Your task to perform on an android device: toggle priority inbox in the gmail app Image 0: 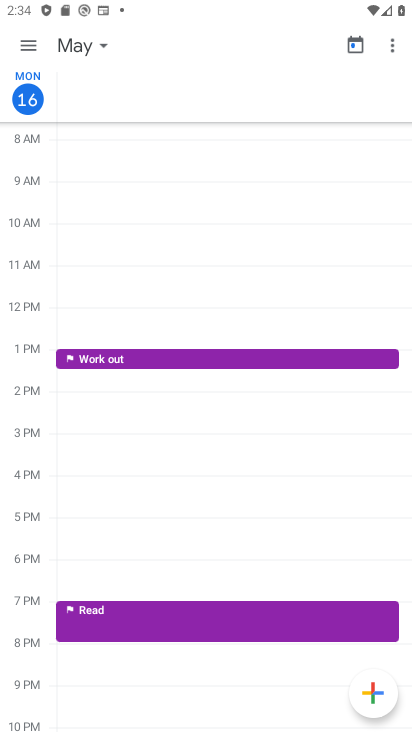
Step 0: press home button
Your task to perform on an android device: toggle priority inbox in the gmail app Image 1: 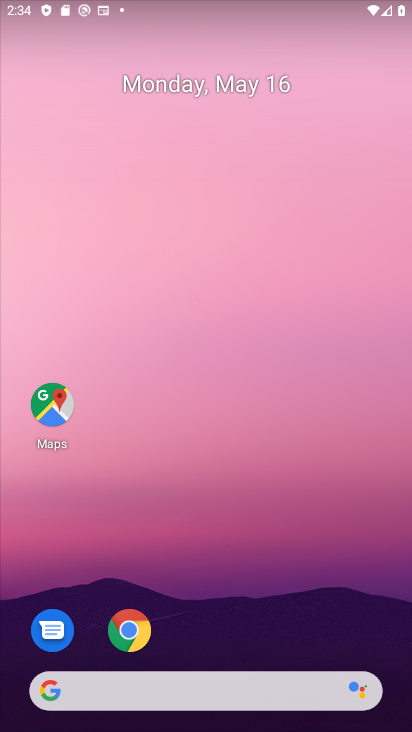
Step 1: drag from (213, 627) to (253, 101)
Your task to perform on an android device: toggle priority inbox in the gmail app Image 2: 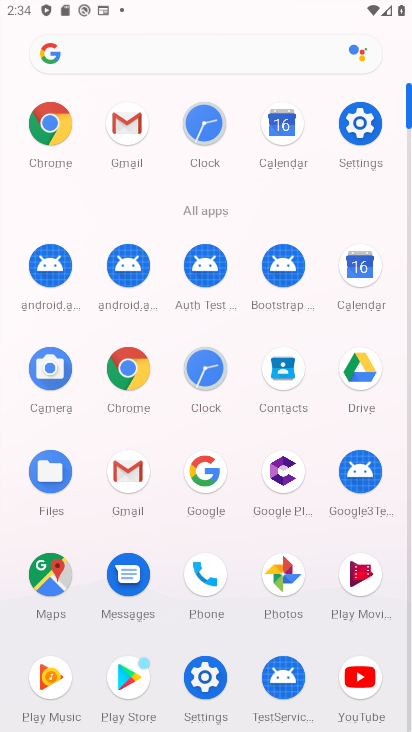
Step 2: click (120, 118)
Your task to perform on an android device: toggle priority inbox in the gmail app Image 3: 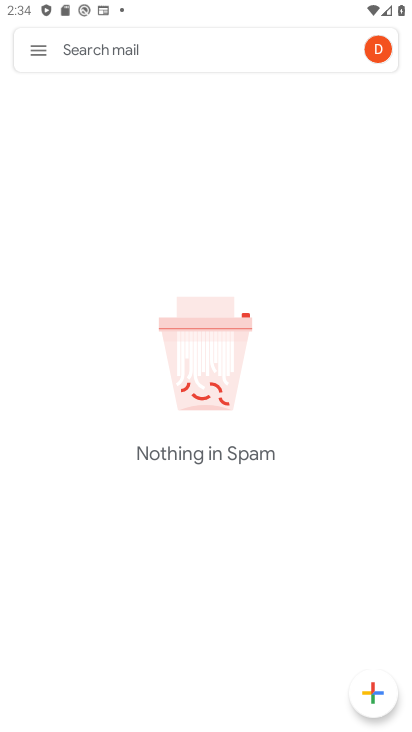
Step 3: click (35, 46)
Your task to perform on an android device: toggle priority inbox in the gmail app Image 4: 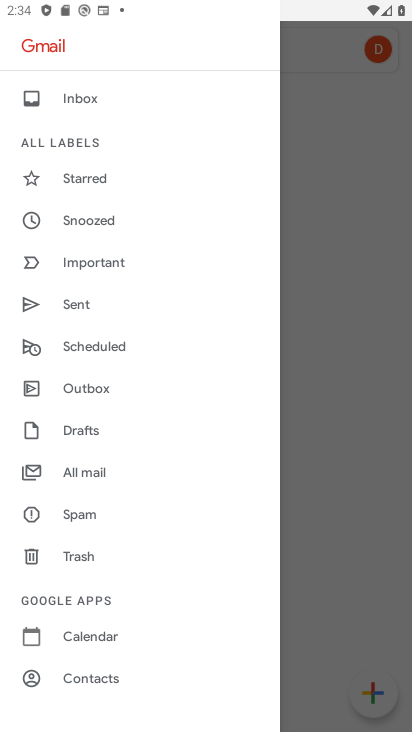
Step 4: drag from (0, 637) to (34, 46)
Your task to perform on an android device: toggle priority inbox in the gmail app Image 5: 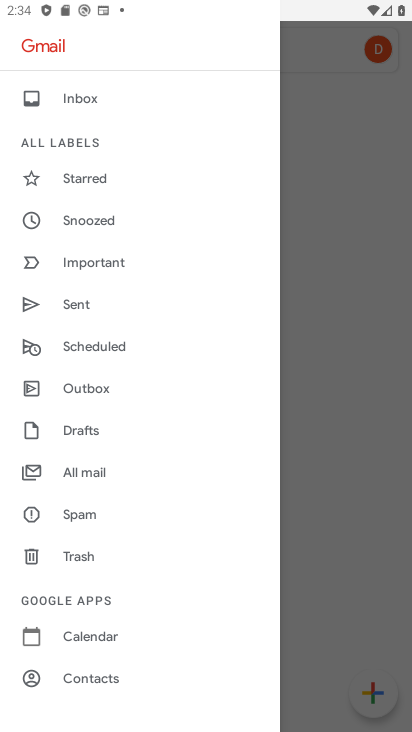
Step 5: drag from (116, 661) to (118, 158)
Your task to perform on an android device: toggle priority inbox in the gmail app Image 6: 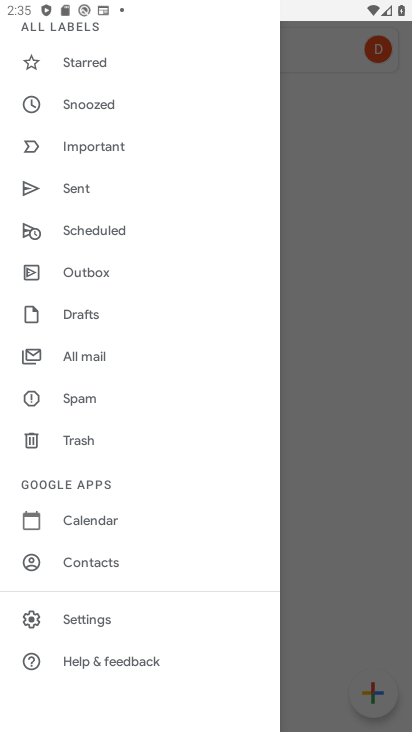
Step 6: click (112, 614)
Your task to perform on an android device: toggle priority inbox in the gmail app Image 7: 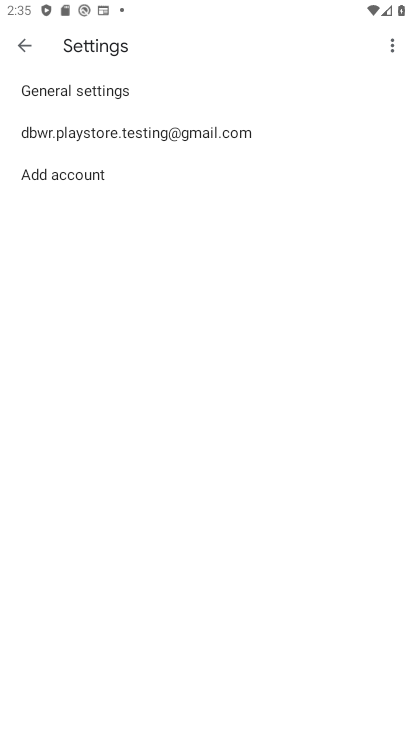
Step 7: click (144, 128)
Your task to perform on an android device: toggle priority inbox in the gmail app Image 8: 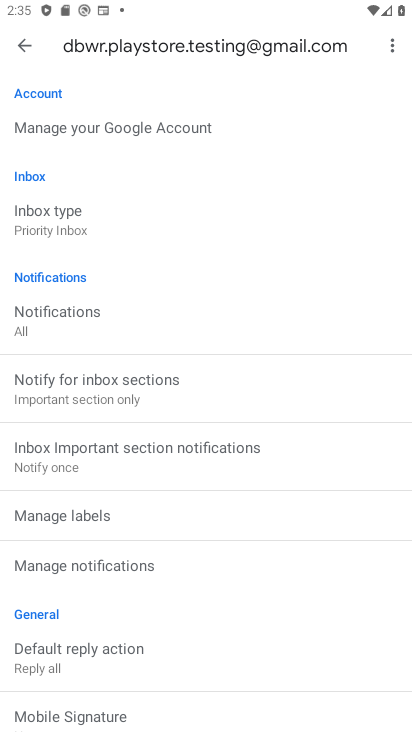
Step 8: click (91, 221)
Your task to perform on an android device: toggle priority inbox in the gmail app Image 9: 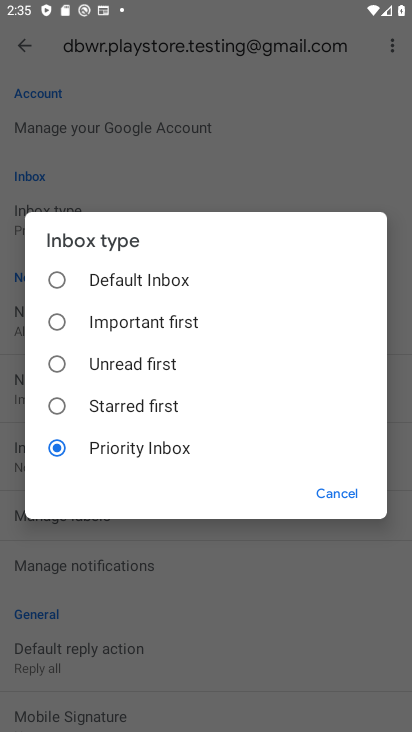
Step 9: click (69, 440)
Your task to perform on an android device: toggle priority inbox in the gmail app Image 10: 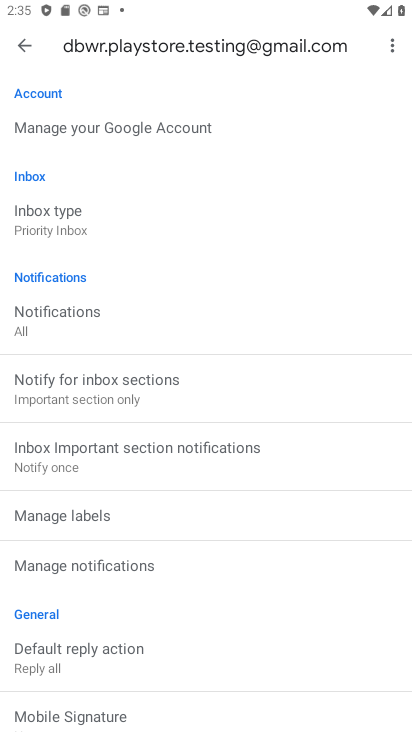
Step 10: task complete